Your task to perform on an android device: turn pop-ups on in chrome Image 0: 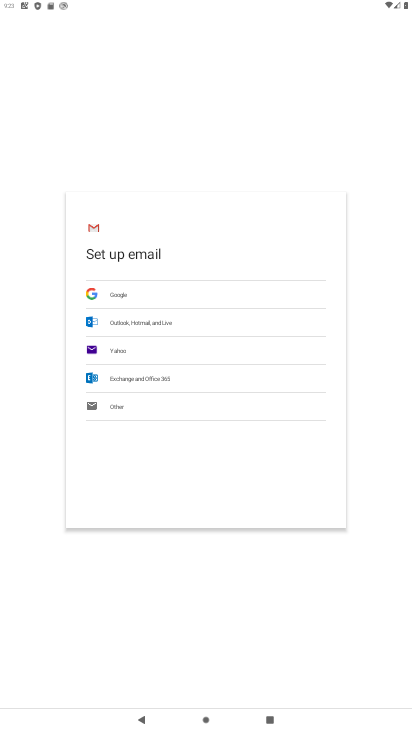
Step 0: press home button
Your task to perform on an android device: turn pop-ups on in chrome Image 1: 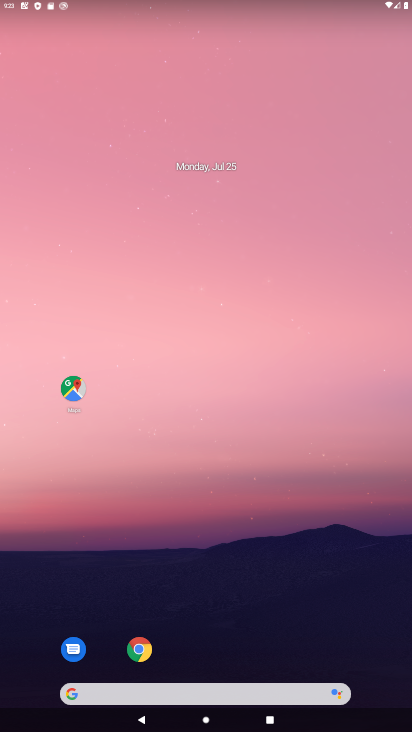
Step 1: drag from (135, 618) to (153, 0)
Your task to perform on an android device: turn pop-ups on in chrome Image 2: 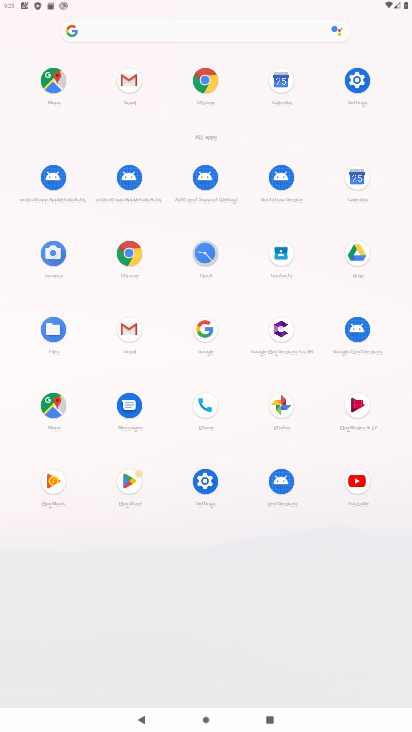
Step 2: click (208, 78)
Your task to perform on an android device: turn pop-ups on in chrome Image 3: 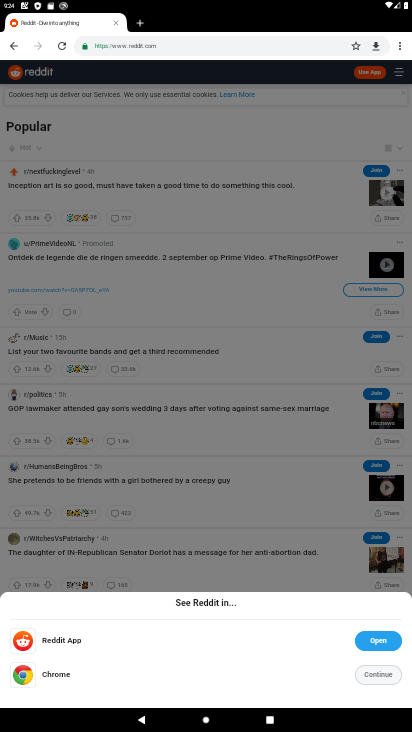
Step 3: drag from (399, 48) to (290, 317)
Your task to perform on an android device: turn pop-ups on in chrome Image 4: 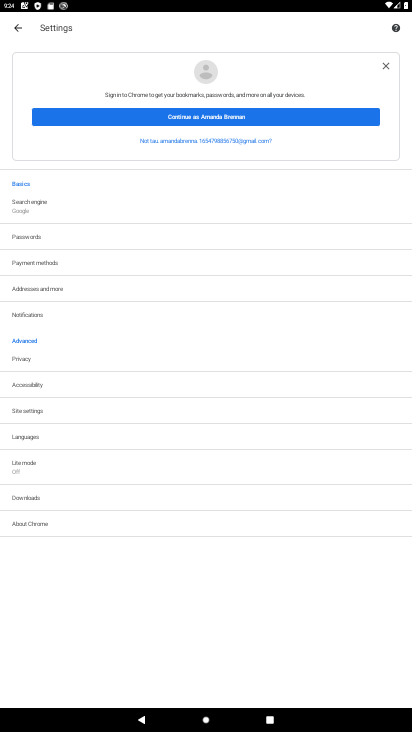
Step 4: click (57, 412)
Your task to perform on an android device: turn pop-ups on in chrome Image 5: 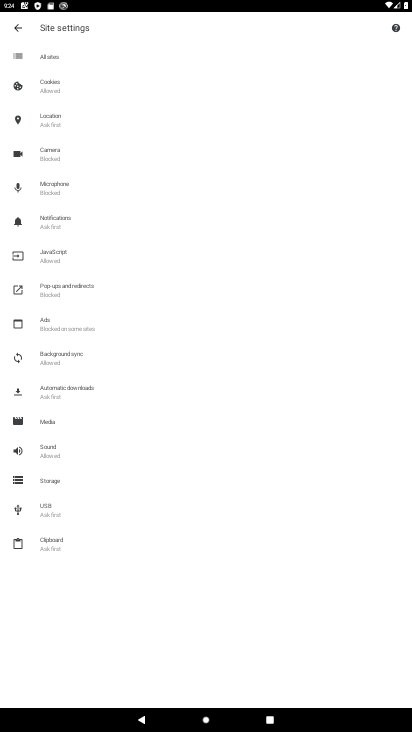
Step 5: click (48, 289)
Your task to perform on an android device: turn pop-ups on in chrome Image 6: 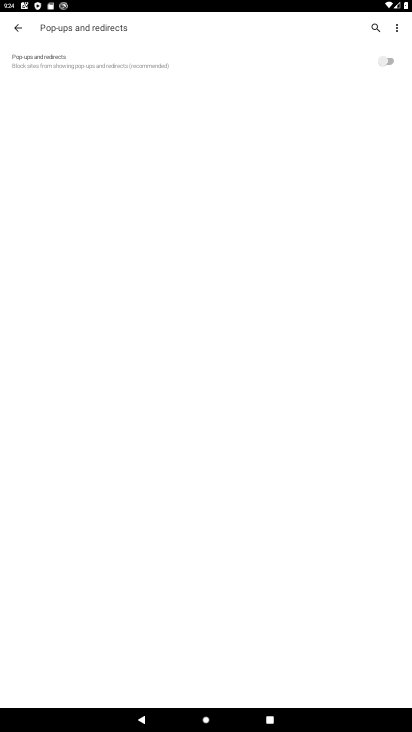
Step 6: click (381, 60)
Your task to perform on an android device: turn pop-ups on in chrome Image 7: 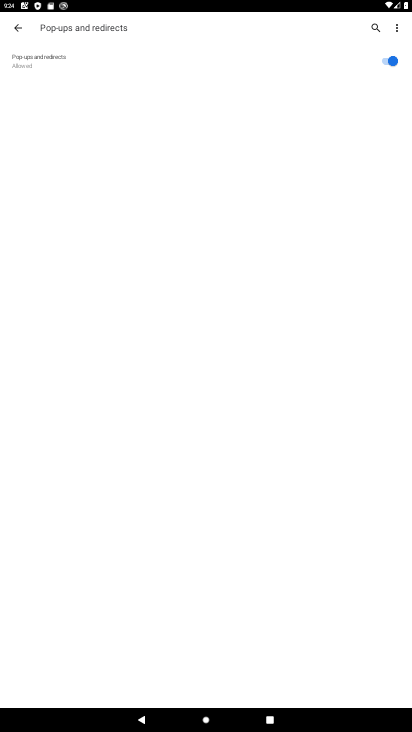
Step 7: task complete